Your task to perform on an android device: What's the weather going to be this weekend? Image 0: 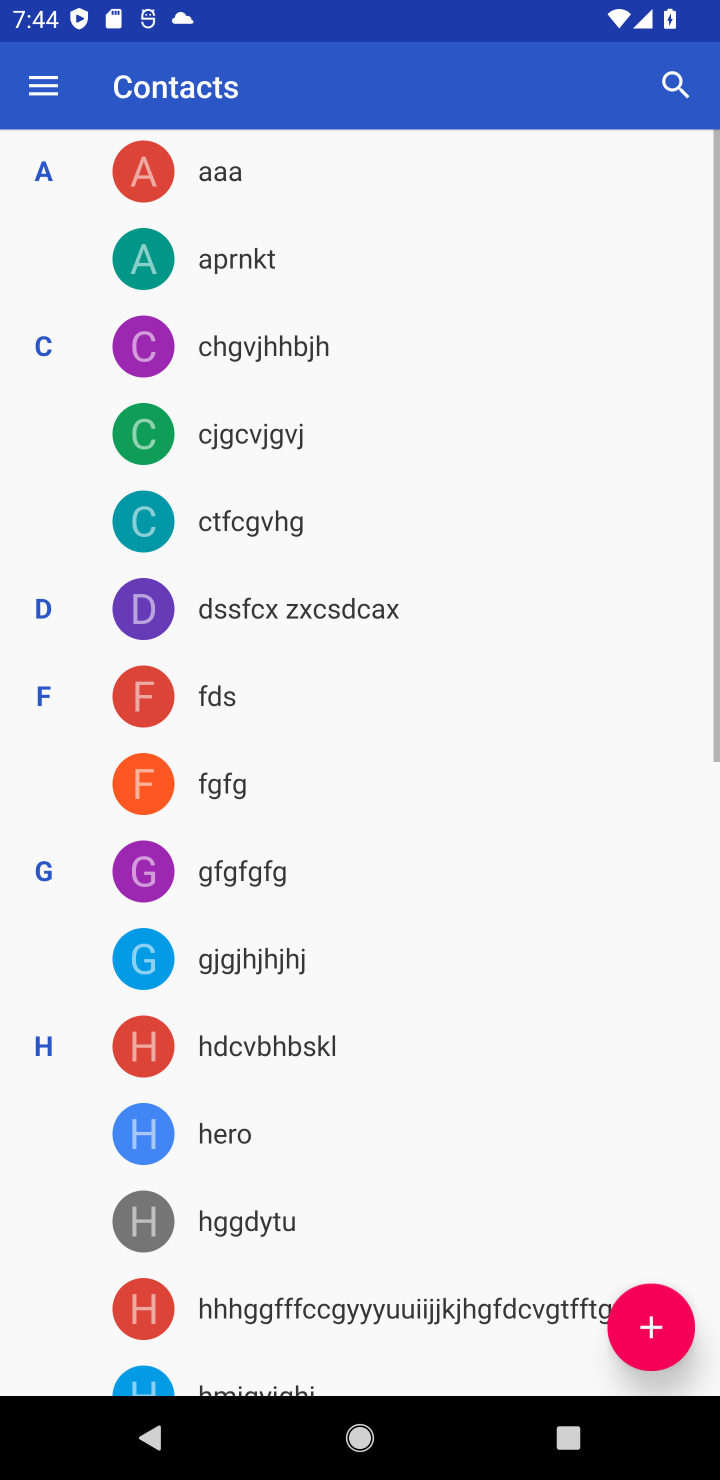
Step 0: press home button
Your task to perform on an android device: What's the weather going to be this weekend? Image 1: 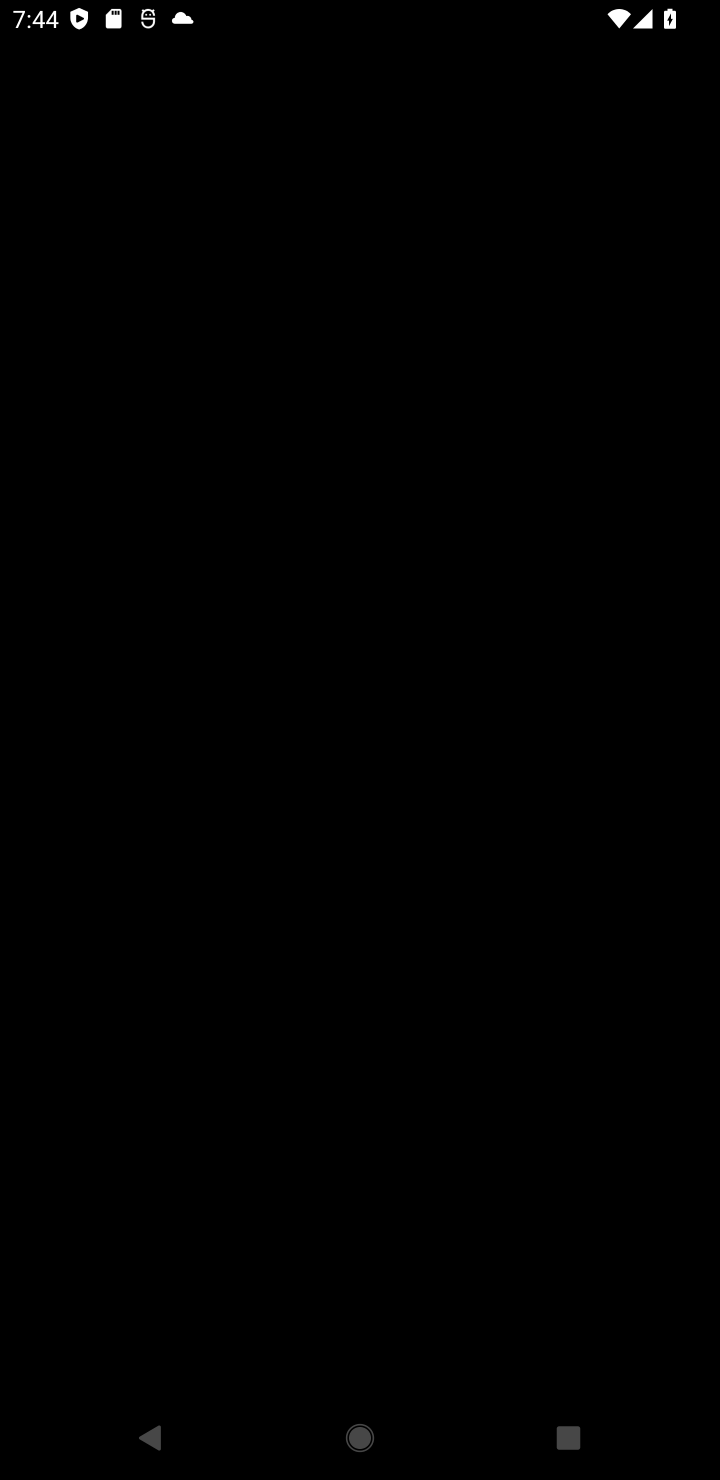
Step 1: press home button
Your task to perform on an android device: What's the weather going to be this weekend? Image 2: 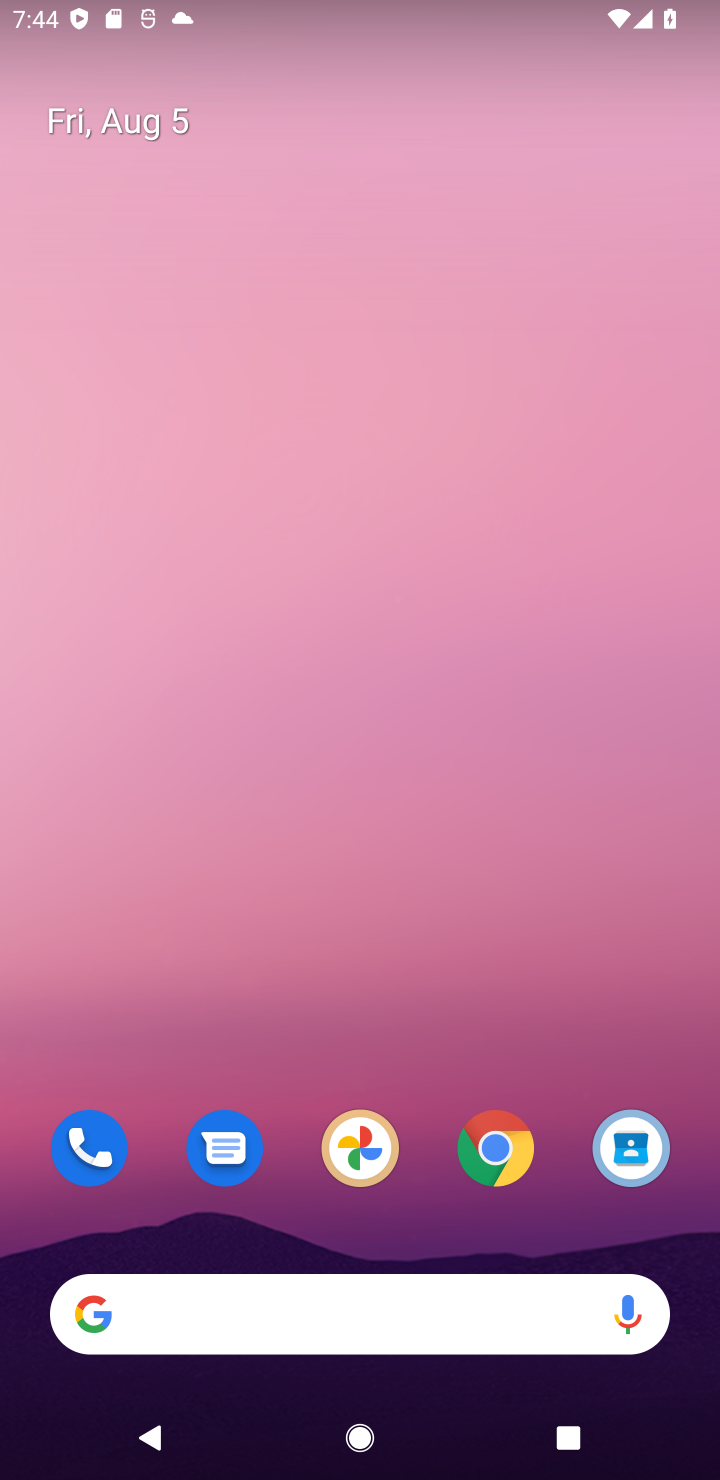
Step 2: drag from (409, 1242) to (407, 196)
Your task to perform on an android device: What's the weather going to be this weekend? Image 3: 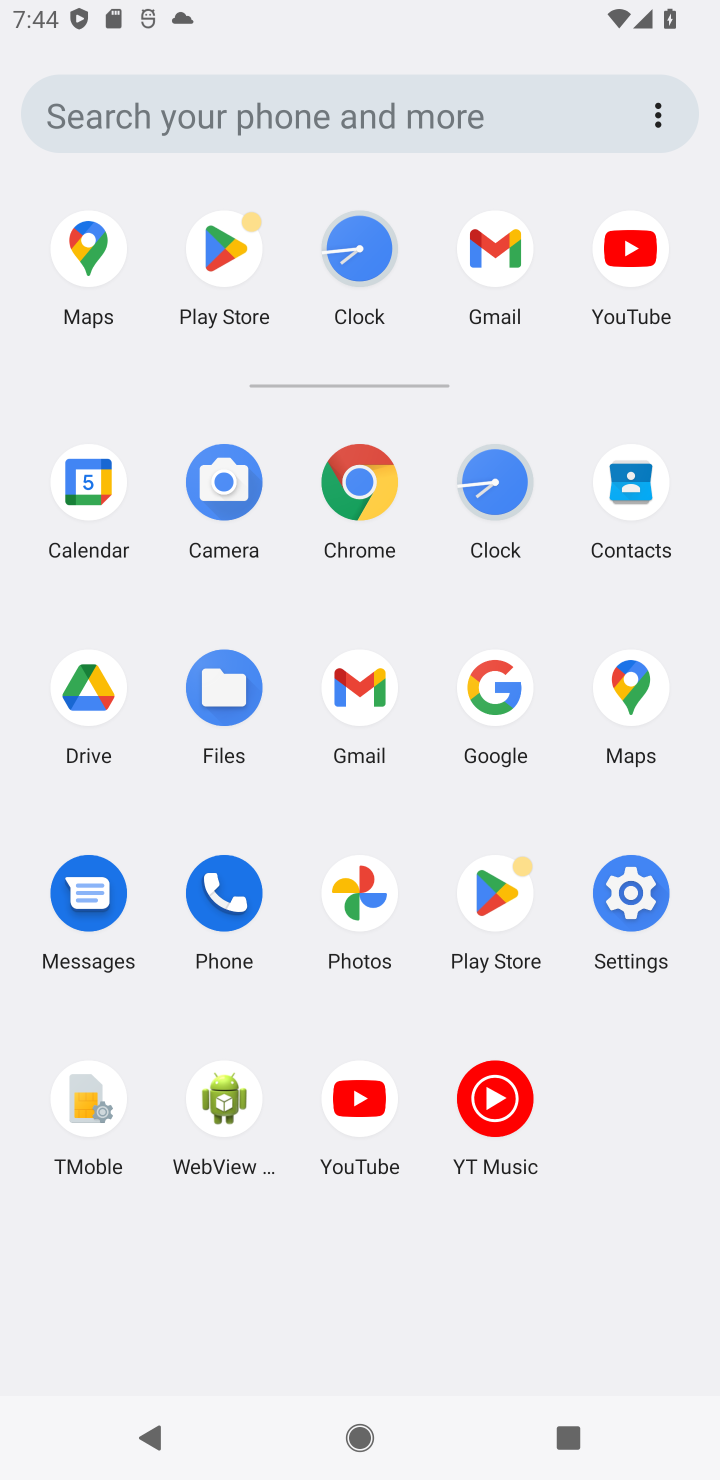
Step 3: click (486, 107)
Your task to perform on an android device: What's the weather going to be this weekend? Image 4: 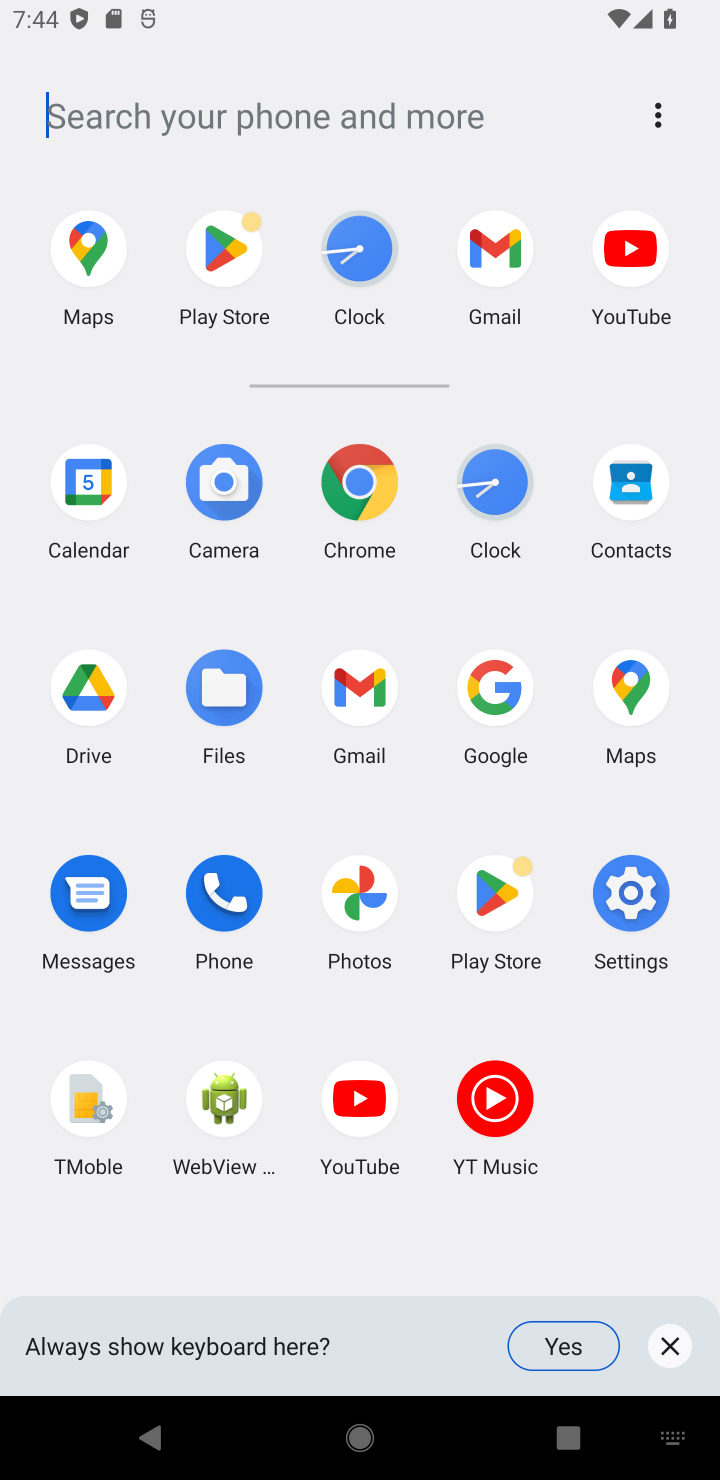
Step 4: type "weather"
Your task to perform on an android device: What's the weather going to be this weekend? Image 5: 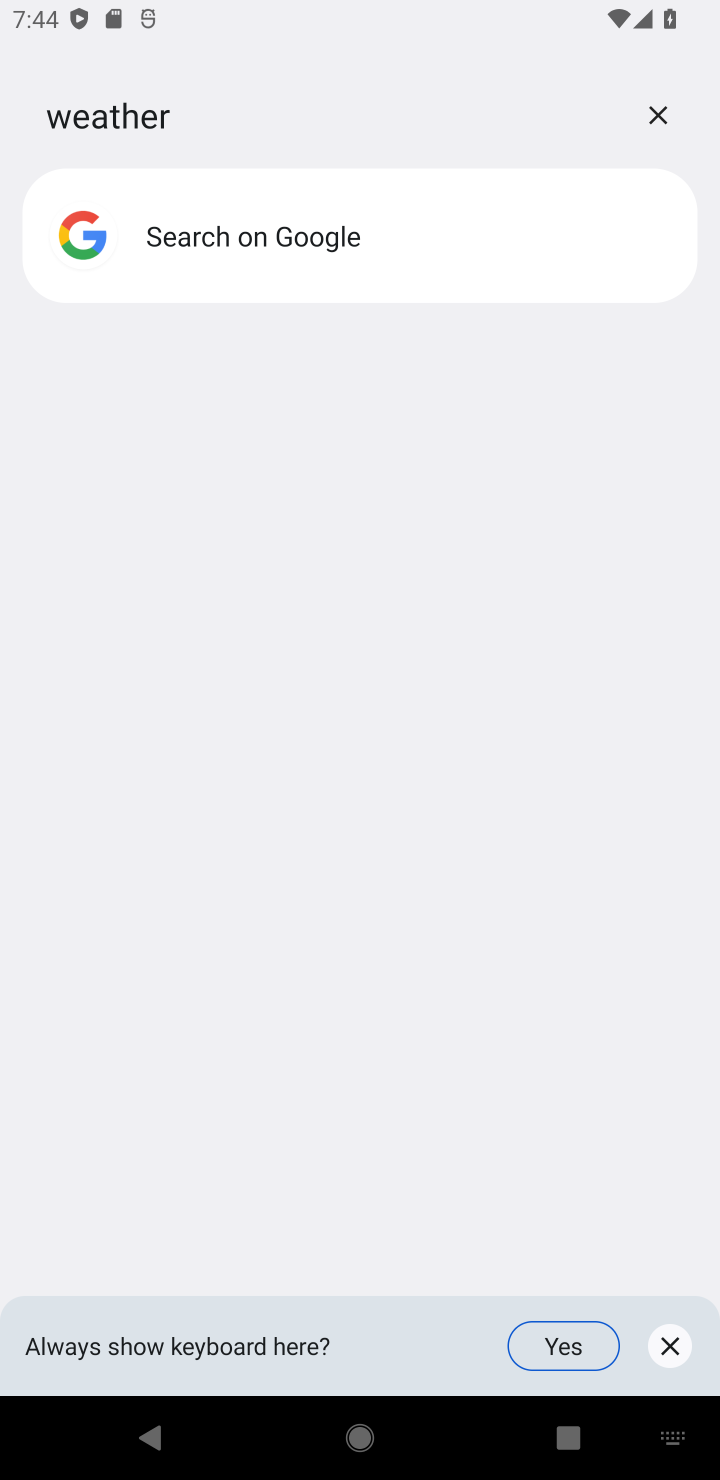
Step 5: task complete